Your task to perform on an android device: allow notifications from all sites in the chrome app Image 0: 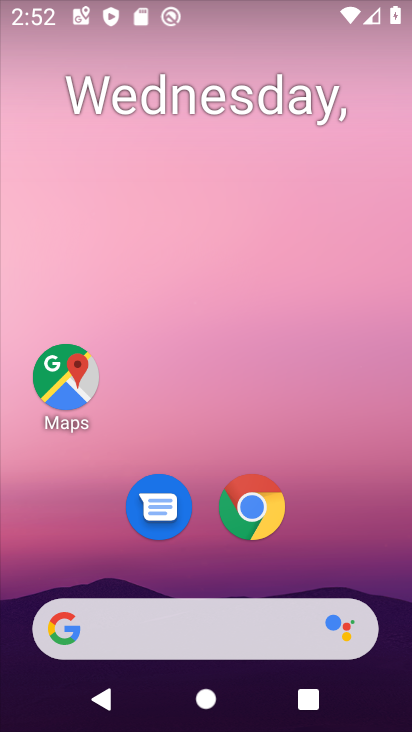
Step 0: click (251, 512)
Your task to perform on an android device: allow notifications from all sites in the chrome app Image 1: 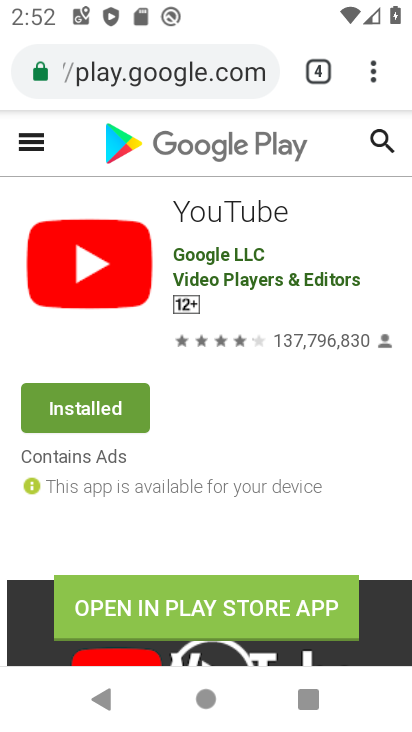
Step 1: click (365, 63)
Your task to perform on an android device: allow notifications from all sites in the chrome app Image 2: 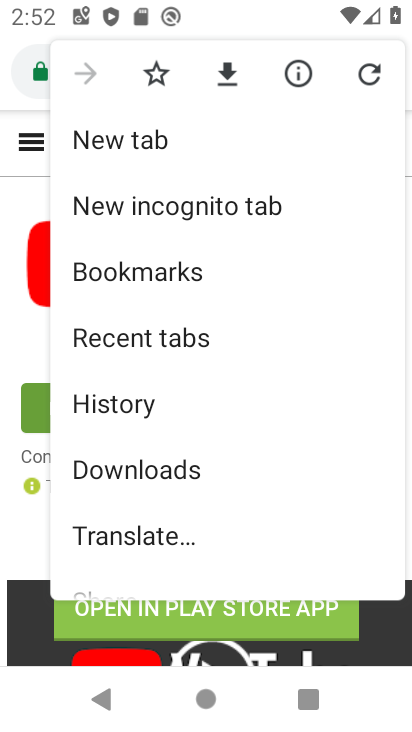
Step 2: drag from (216, 512) to (207, 81)
Your task to perform on an android device: allow notifications from all sites in the chrome app Image 3: 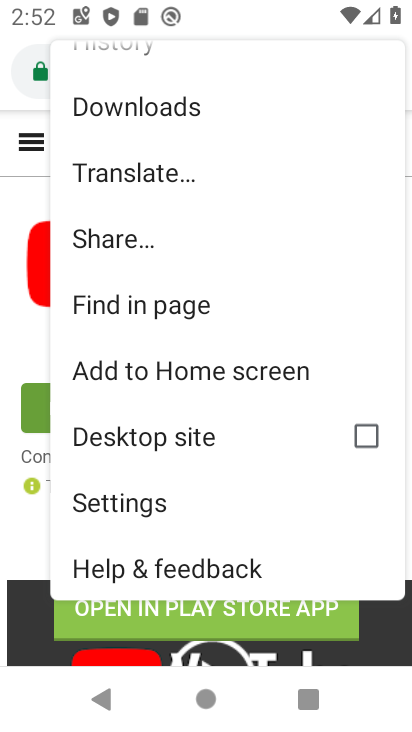
Step 3: click (213, 499)
Your task to perform on an android device: allow notifications from all sites in the chrome app Image 4: 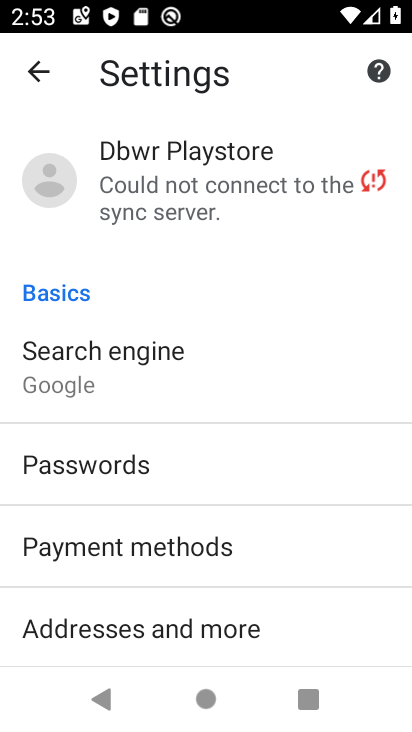
Step 4: drag from (182, 614) to (175, 35)
Your task to perform on an android device: allow notifications from all sites in the chrome app Image 5: 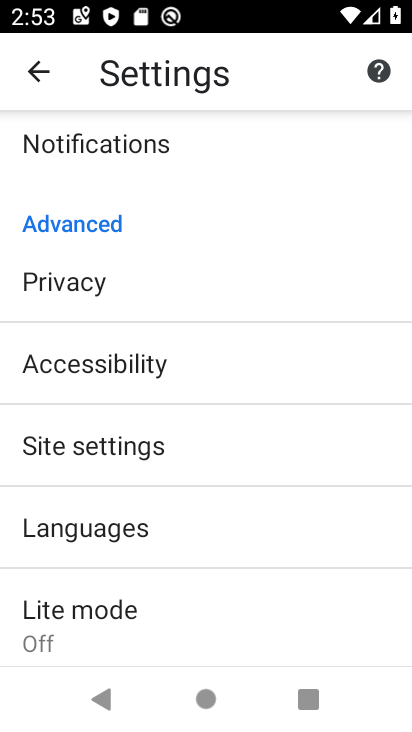
Step 5: drag from (141, 521) to (180, 73)
Your task to perform on an android device: allow notifications from all sites in the chrome app Image 6: 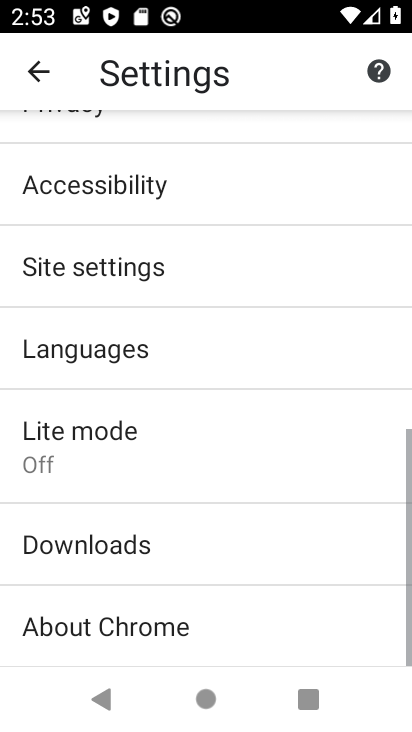
Step 6: drag from (189, 541) to (196, 158)
Your task to perform on an android device: allow notifications from all sites in the chrome app Image 7: 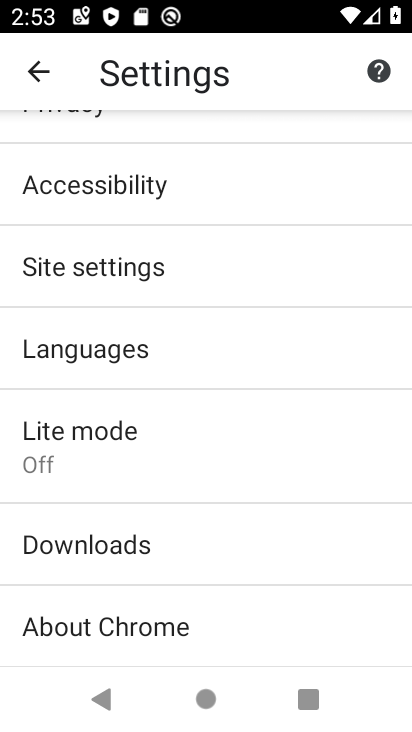
Step 7: click (126, 282)
Your task to perform on an android device: allow notifications from all sites in the chrome app Image 8: 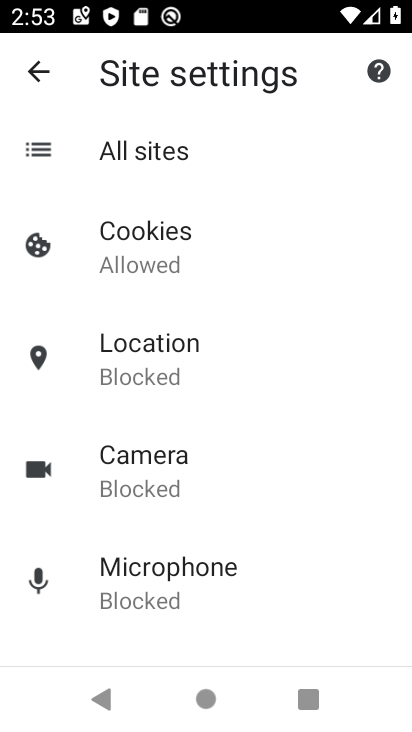
Step 8: drag from (257, 563) to (245, 140)
Your task to perform on an android device: allow notifications from all sites in the chrome app Image 9: 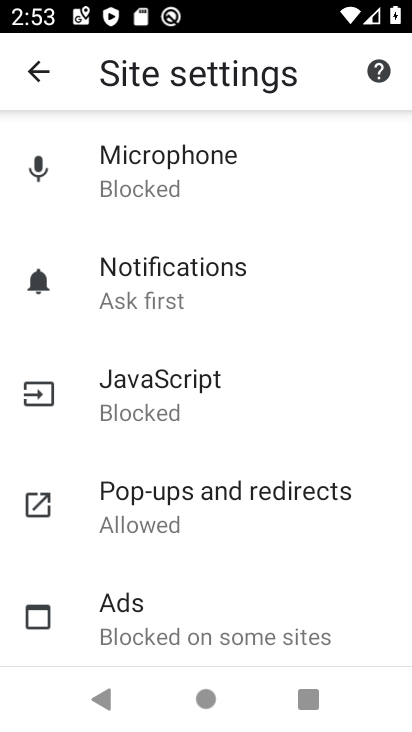
Step 9: drag from (235, 544) to (228, 171)
Your task to perform on an android device: allow notifications from all sites in the chrome app Image 10: 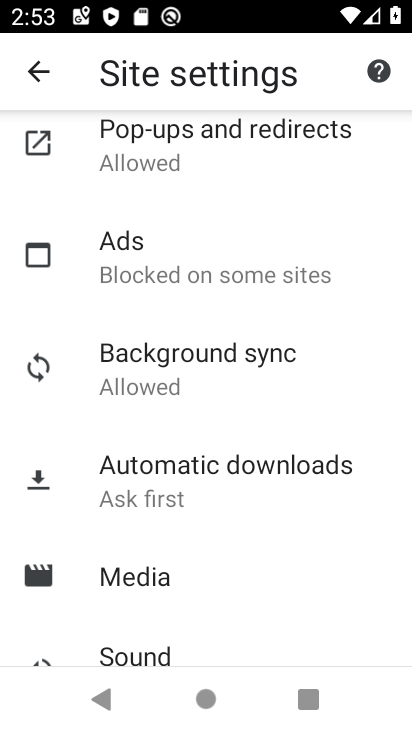
Step 10: drag from (181, 575) to (213, 204)
Your task to perform on an android device: allow notifications from all sites in the chrome app Image 11: 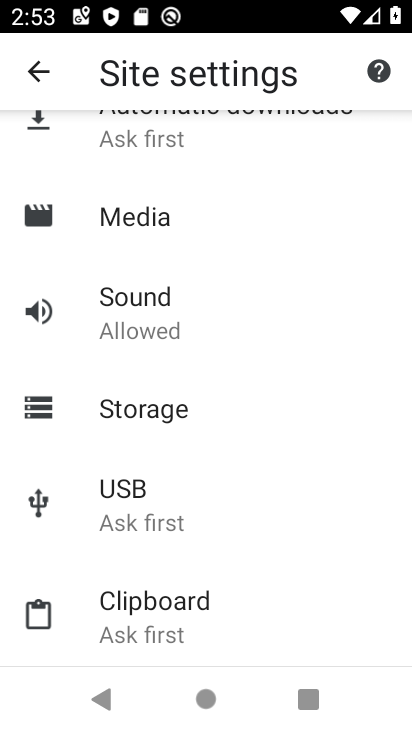
Step 11: click (163, 321)
Your task to perform on an android device: allow notifications from all sites in the chrome app Image 12: 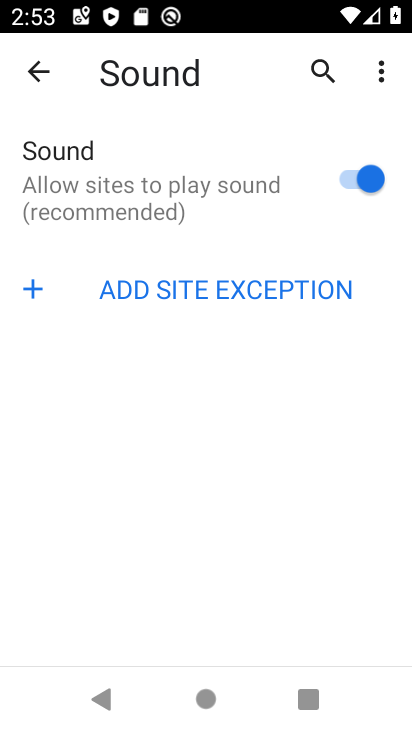
Step 12: press back button
Your task to perform on an android device: allow notifications from all sites in the chrome app Image 13: 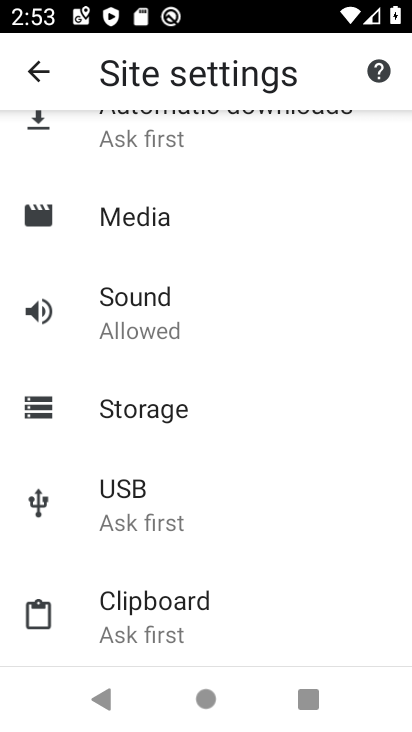
Step 13: drag from (232, 523) to (403, 124)
Your task to perform on an android device: allow notifications from all sites in the chrome app Image 14: 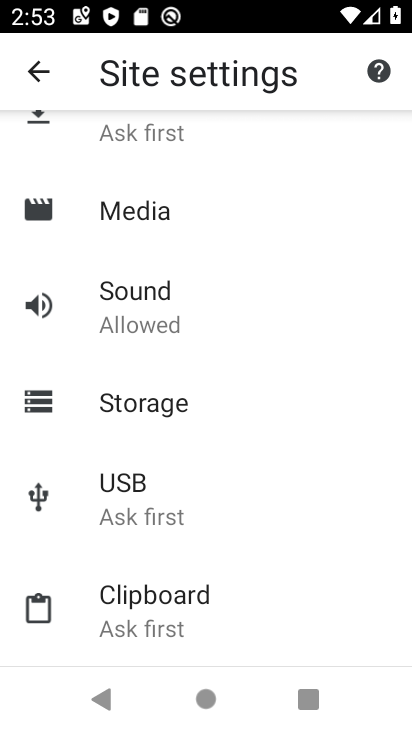
Step 14: drag from (213, 606) to (230, 295)
Your task to perform on an android device: allow notifications from all sites in the chrome app Image 15: 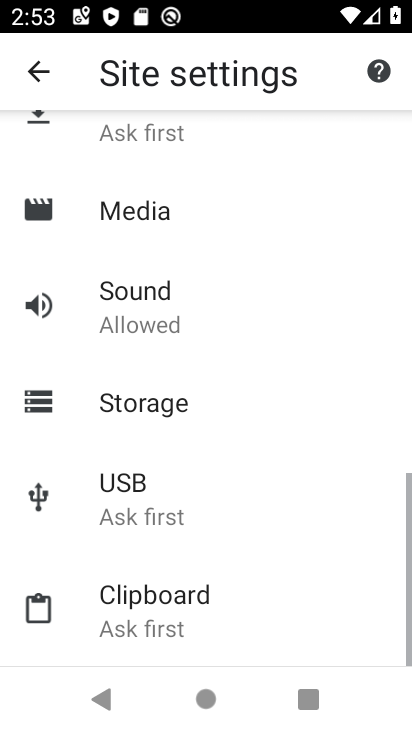
Step 15: drag from (307, 210) to (295, 571)
Your task to perform on an android device: allow notifications from all sites in the chrome app Image 16: 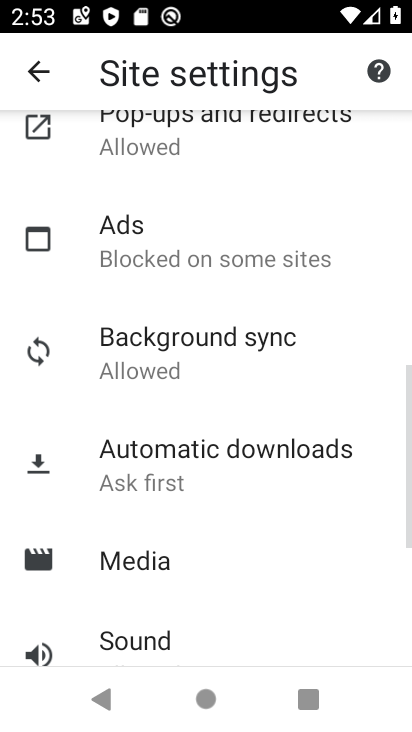
Step 16: drag from (329, 292) to (323, 519)
Your task to perform on an android device: allow notifications from all sites in the chrome app Image 17: 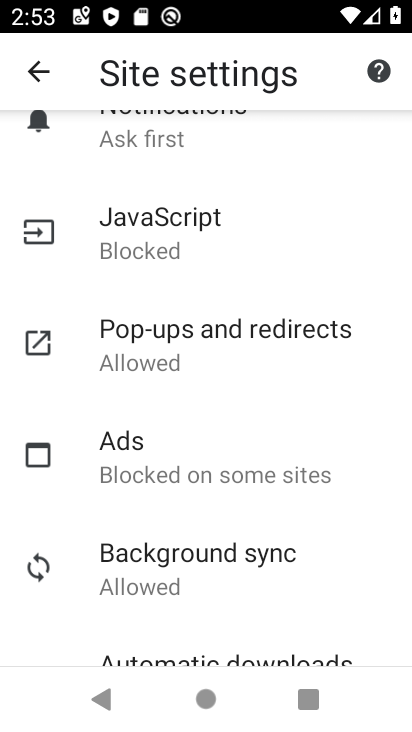
Step 17: drag from (319, 247) to (316, 287)
Your task to perform on an android device: allow notifications from all sites in the chrome app Image 18: 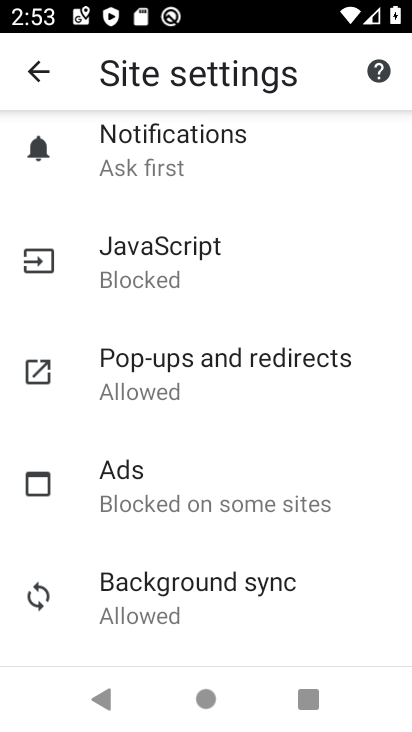
Step 18: click (324, 351)
Your task to perform on an android device: allow notifications from all sites in the chrome app Image 19: 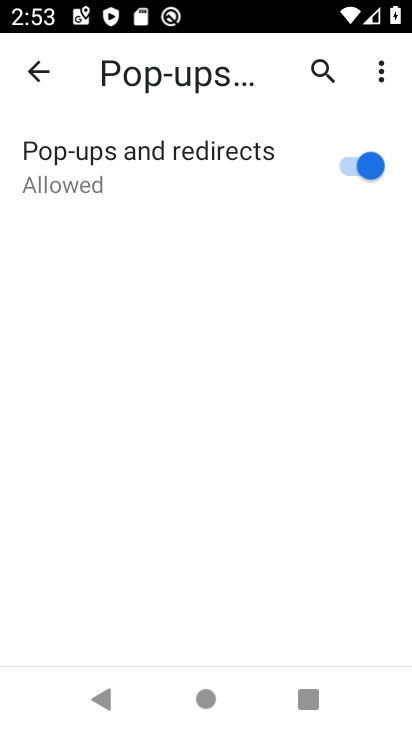
Step 19: task complete